Your task to perform on an android device: toggle location history Image 0: 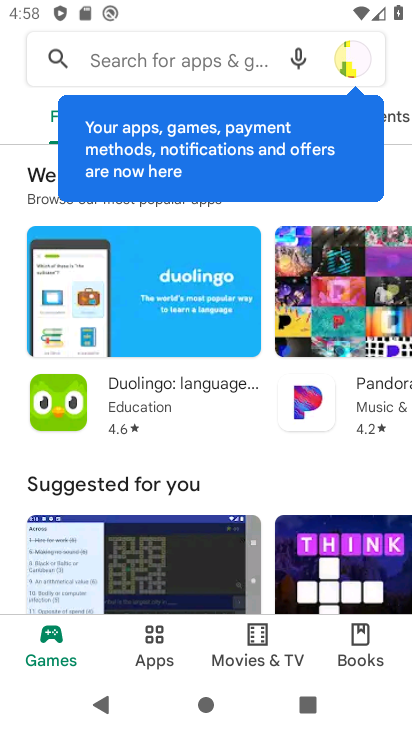
Step 0: press back button
Your task to perform on an android device: toggle location history Image 1: 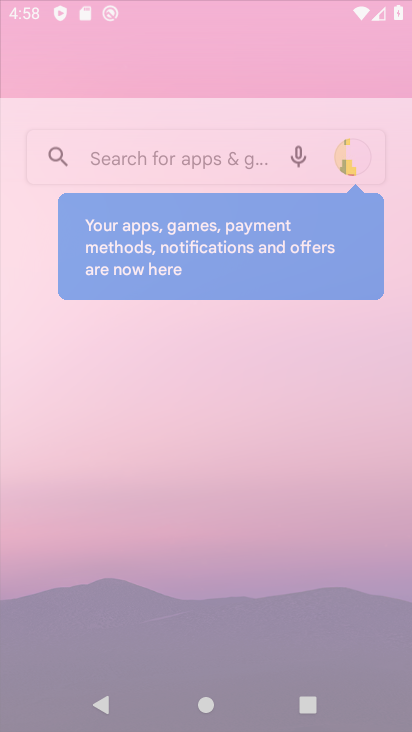
Step 1: press back button
Your task to perform on an android device: toggle location history Image 2: 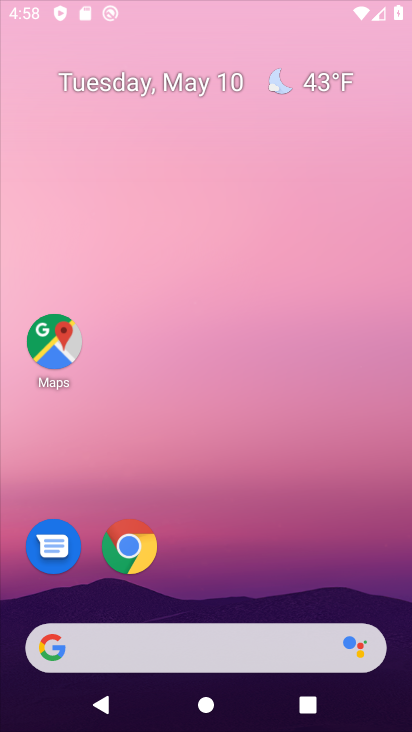
Step 2: press back button
Your task to perform on an android device: toggle location history Image 3: 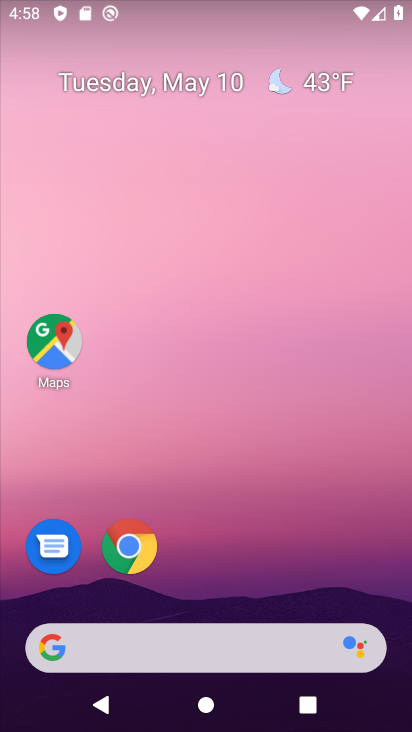
Step 3: drag from (214, 446) to (31, 9)
Your task to perform on an android device: toggle location history Image 4: 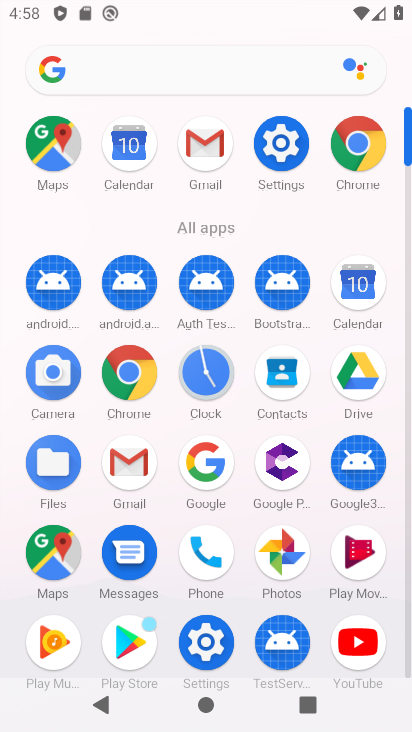
Step 4: click (49, 141)
Your task to perform on an android device: toggle location history Image 5: 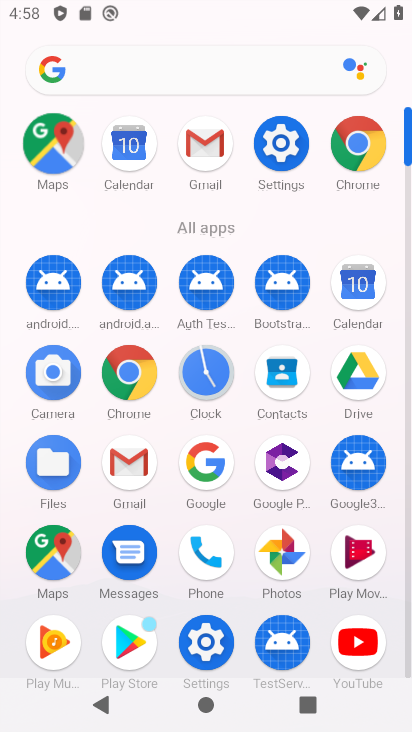
Step 5: click (50, 138)
Your task to perform on an android device: toggle location history Image 6: 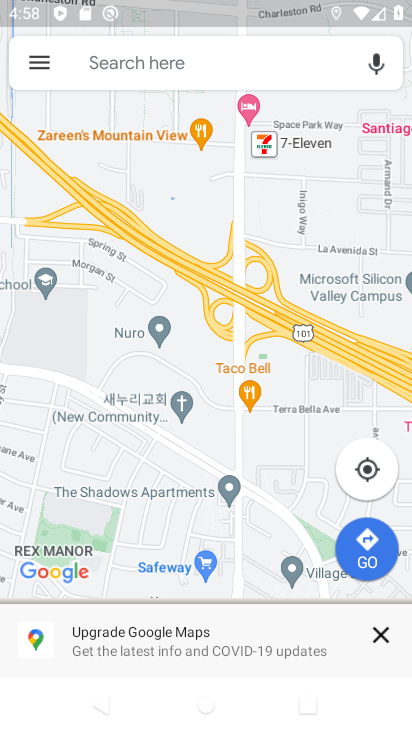
Step 6: click (37, 60)
Your task to perform on an android device: toggle location history Image 7: 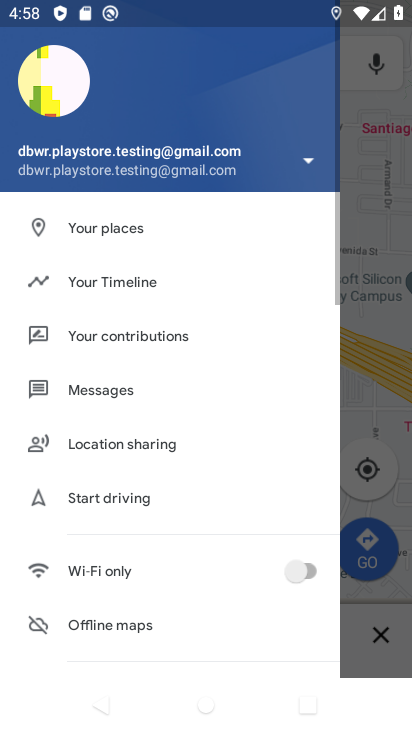
Step 7: click (128, 267)
Your task to perform on an android device: toggle location history Image 8: 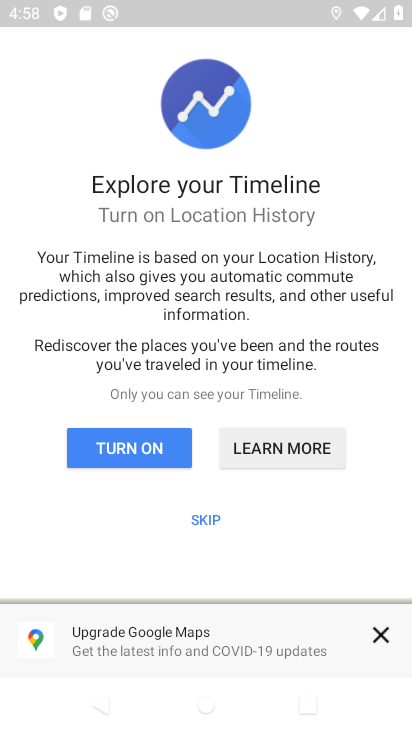
Step 8: click (132, 444)
Your task to perform on an android device: toggle location history Image 9: 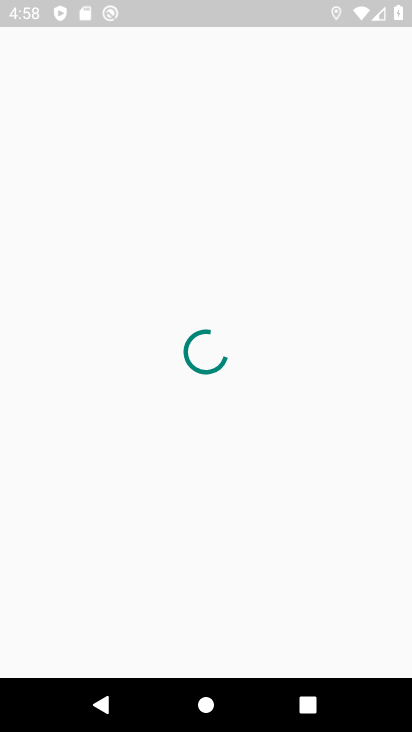
Step 9: drag from (382, 61) to (344, 649)
Your task to perform on an android device: toggle location history Image 10: 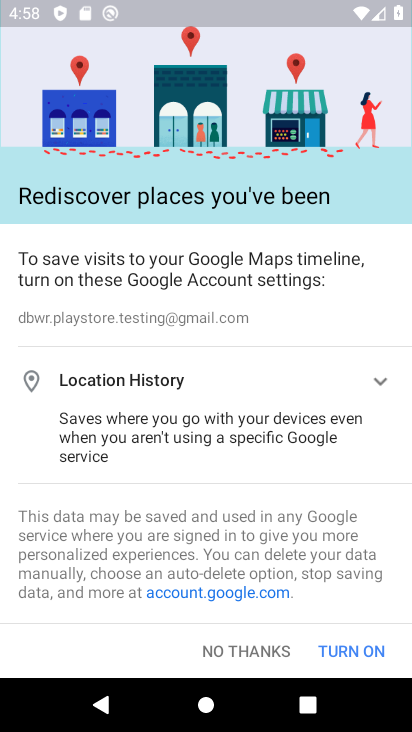
Step 10: click (345, 649)
Your task to perform on an android device: toggle location history Image 11: 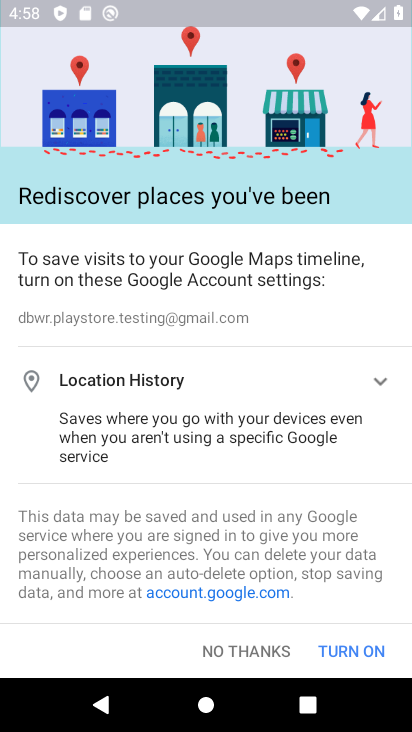
Step 11: click (347, 648)
Your task to perform on an android device: toggle location history Image 12: 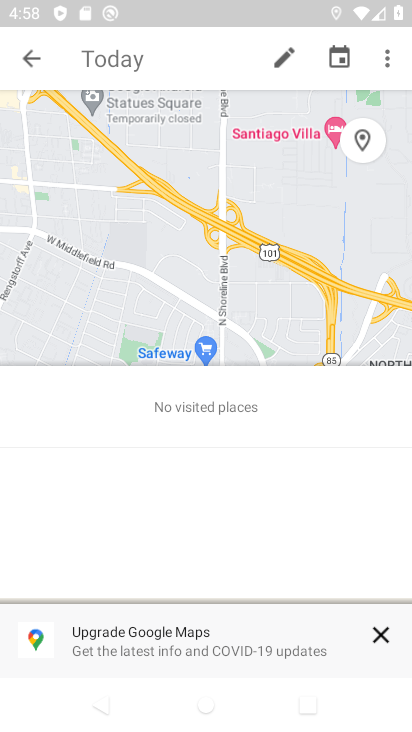
Step 12: click (384, 62)
Your task to perform on an android device: toggle location history Image 13: 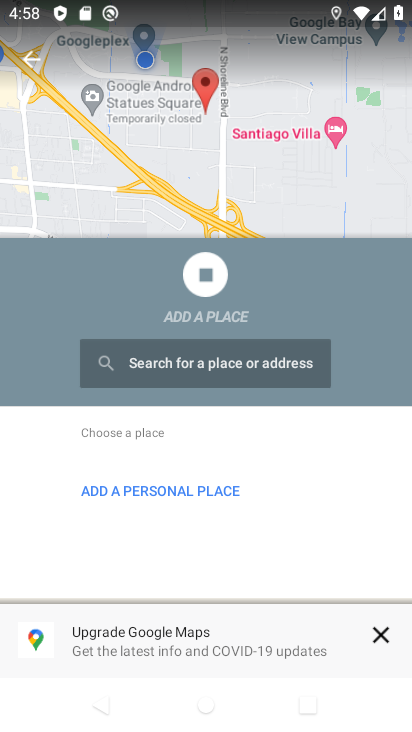
Step 13: click (386, 55)
Your task to perform on an android device: toggle location history Image 14: 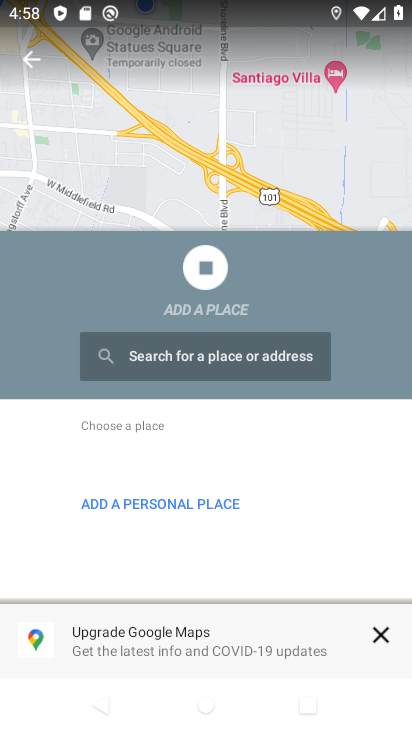
Step 14: click (386, 65)
Your task to perform on an android device: toggle location history Image 15: 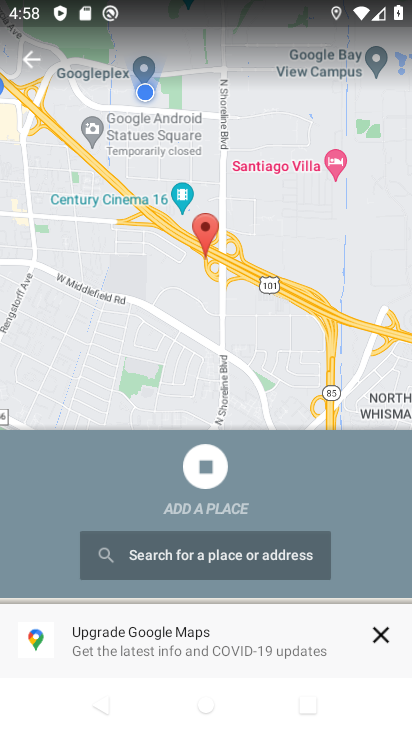
Step 15: click (261, 384)
Your task to perform on an android device: toggle location history Image 16: 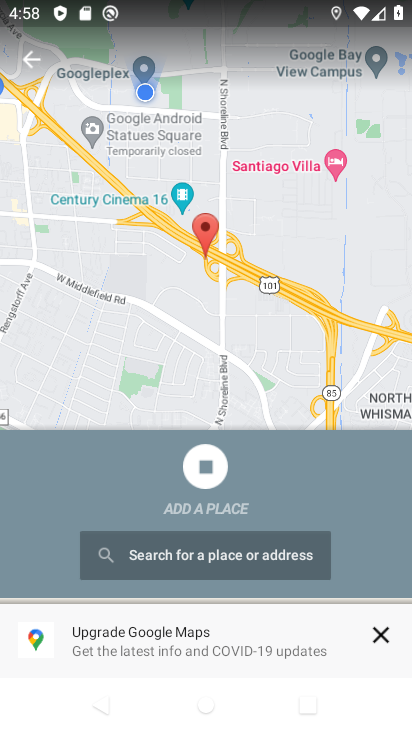
Step 16: click (261, 384)
Your task to perform on an android device: toggle location history Image 17: 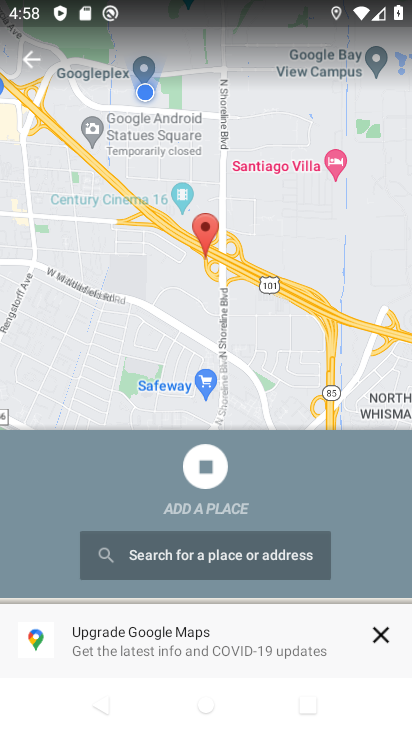
Step 17: click (260, 383)
Your task to perform on an android device: toggle location history Image 18: 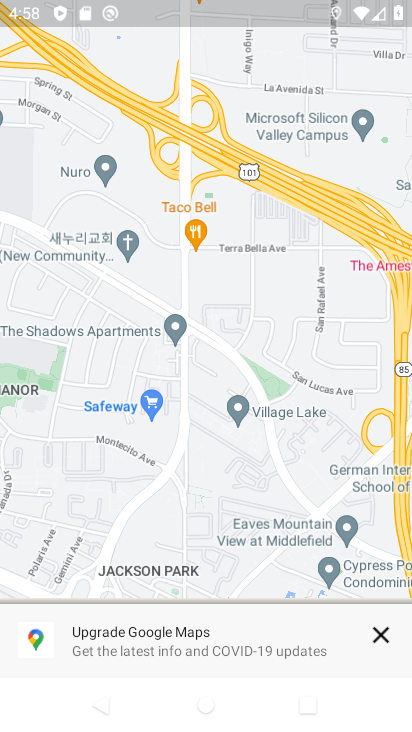
Step 18: task complete